Your task to perform on an android device: See recent photos Image 0: 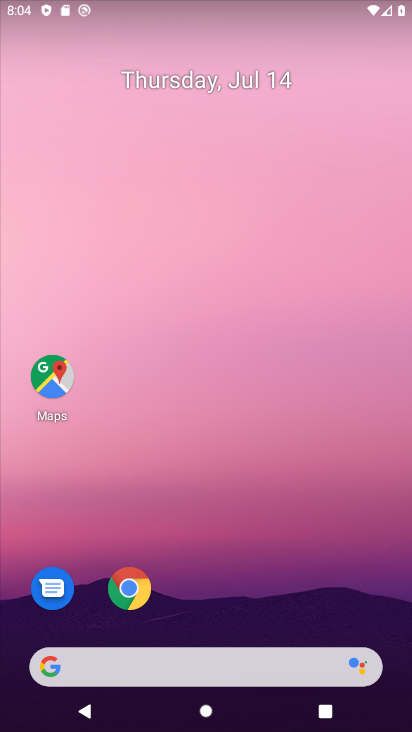
Step 0: drag from (204, 625) to (173, 13)
Your task to perform on an android device: See recent photos Image 1: 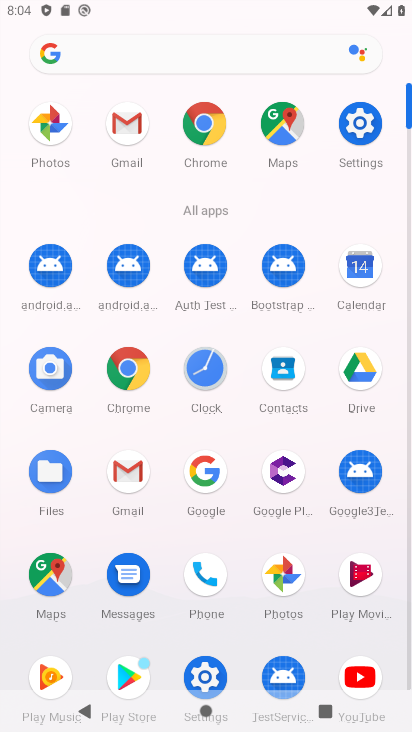
Step 1: click (285, 589)
Your task to perform on an android device: See recent photos Image 2: 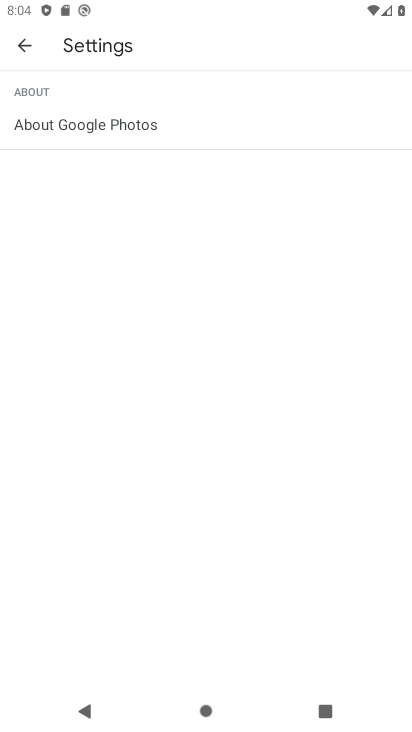
Step 2: click (16, 44)
Your task to perform on an android device: See recent photos Image 3: 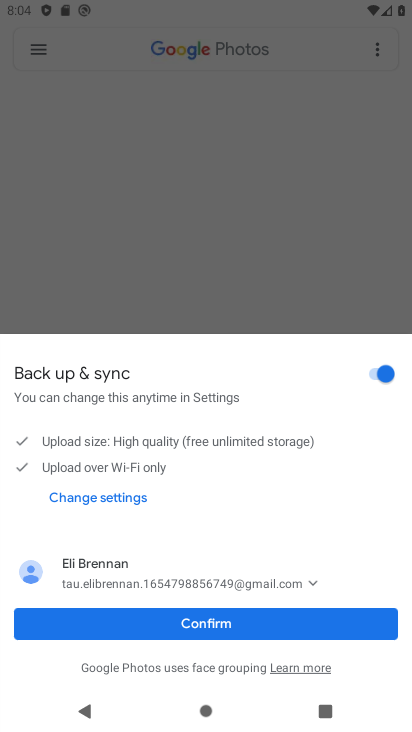
Step 3: click (235, 628)
Your task to perform on an android device: See recent photos Image 4: 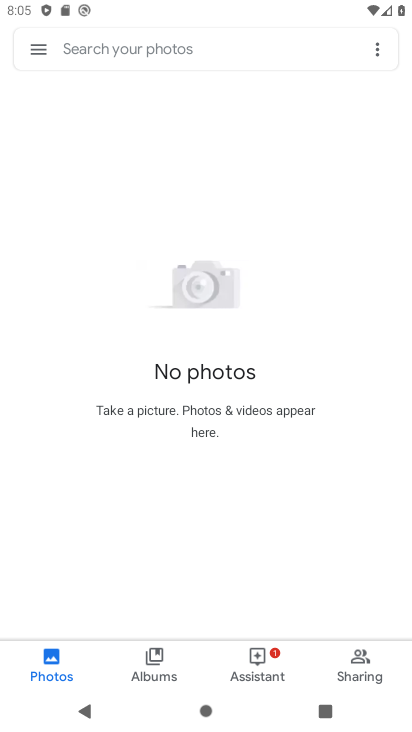
Step 4: task complete